Your task to perform on an android device: add a label to a message in the gmail app Image 0: 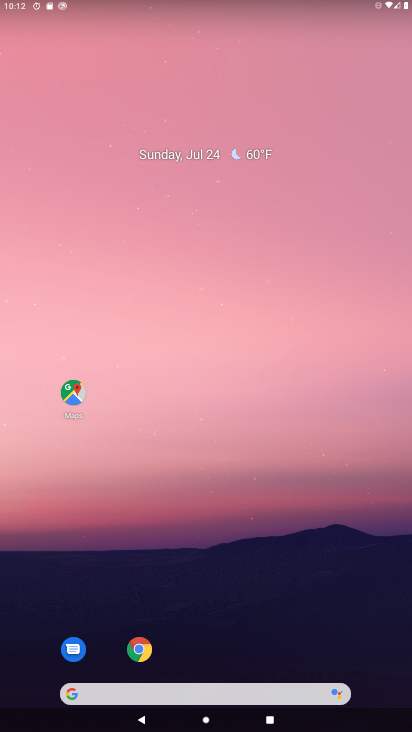
Step 0: drag from (339, 572) to (223, 19)
Your task to perform on an android device: add a label to a message in the gmail app Image 1: 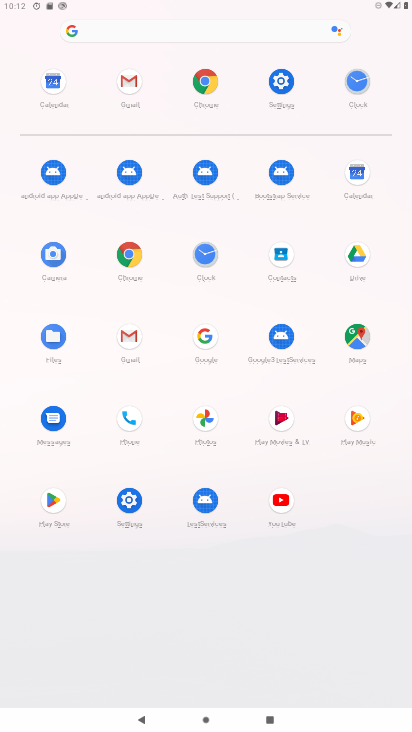
Step 1: click (134, 85)
Your task to perform on an android device: add a label to a message in the gmail app Image 2: 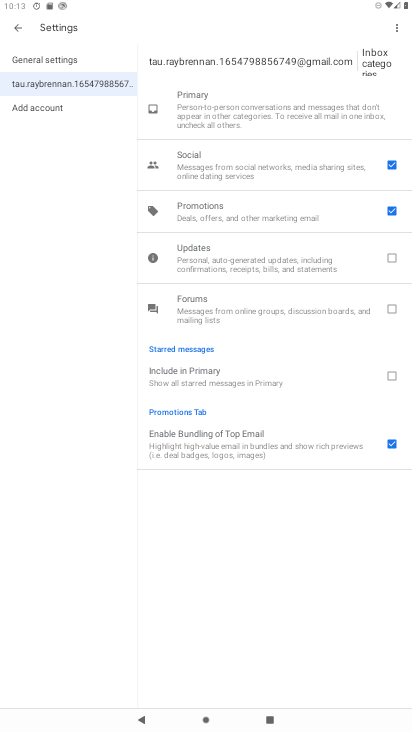
Step 2: click (19, 34)
Your task to perform on an android device: add a label to a message in the gmail app Image 3: 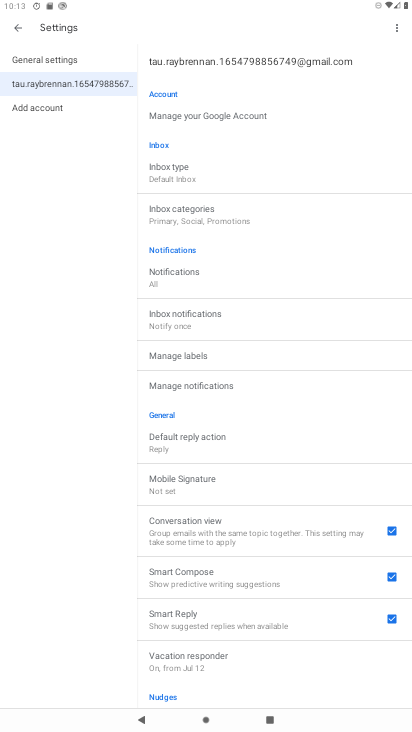
Step 3: click (16, 30)
Your task to perform on an android device: add a label to a message in the gmail app Image 4: 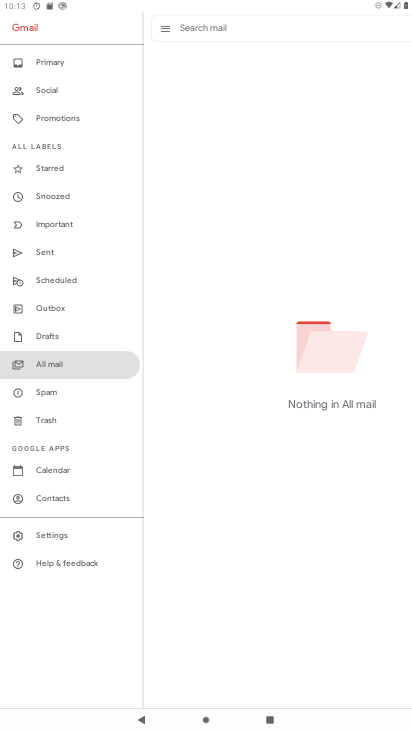
Step 4: task complete